Your task to perform on an android device: move a message to another label in the gmail app Image 0: 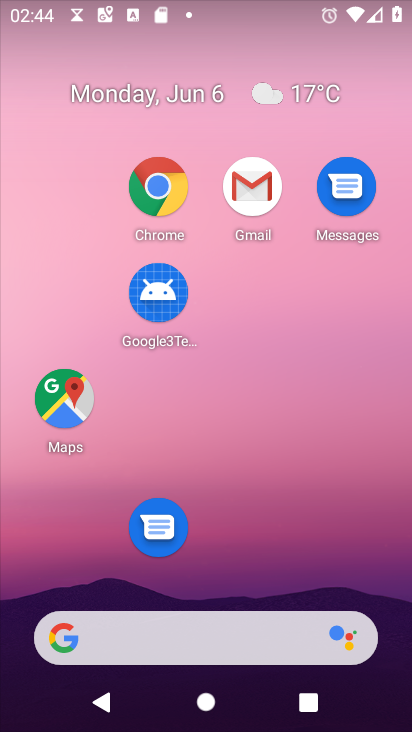
Step 0: drag from (320, 453) to (317, 28)
Your task to perform on an android device: move a message to another label in the gmail app Image 1: 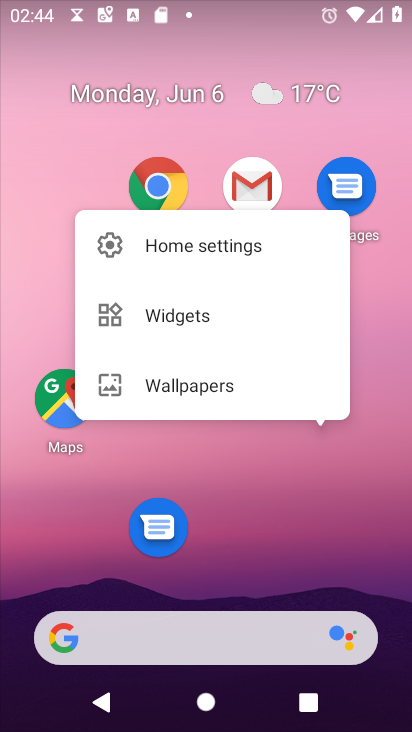
Step 1: click (363, 478)
Your task to perform on an android device: move a message to another label in the gmail app Image 2: 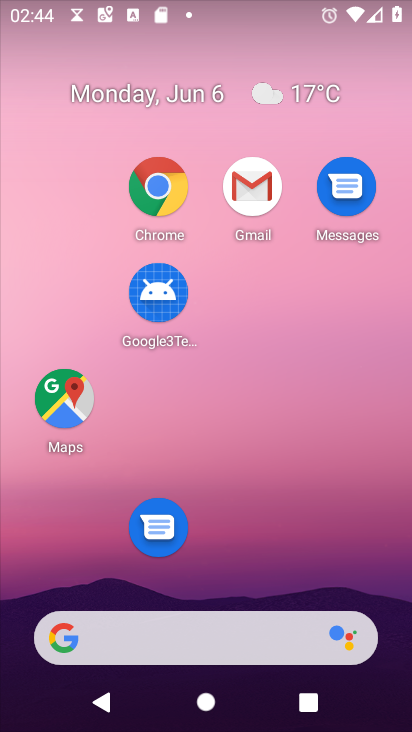
Step 2: click (236, 198)
Your task to perform on an android device: move a message to another label in the gmail app Image 3: 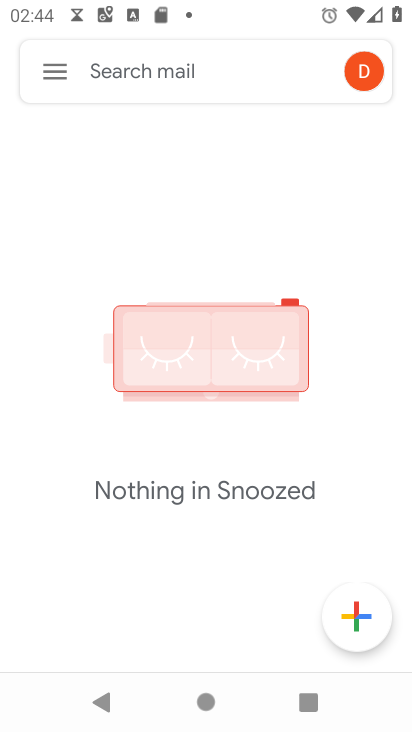
Step 3: click (44, 63)
Your task to perform on an android device: move a message to another label in the gmail app Image 4: 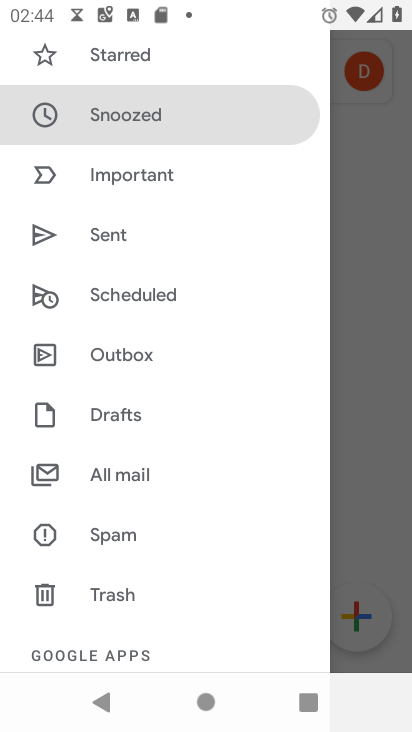
Step 4: click (109, 468)
Your task to perform on an android device: move a message to another label in the gmail app Image 5: 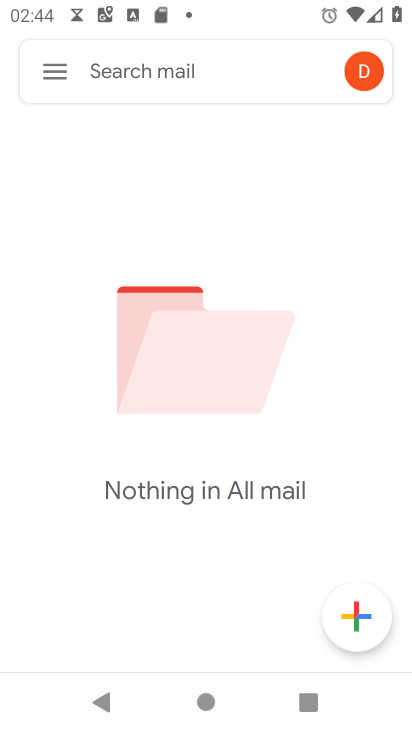
Step 5: task complete